Your task to perform on an android device: Check the weather Image 0: 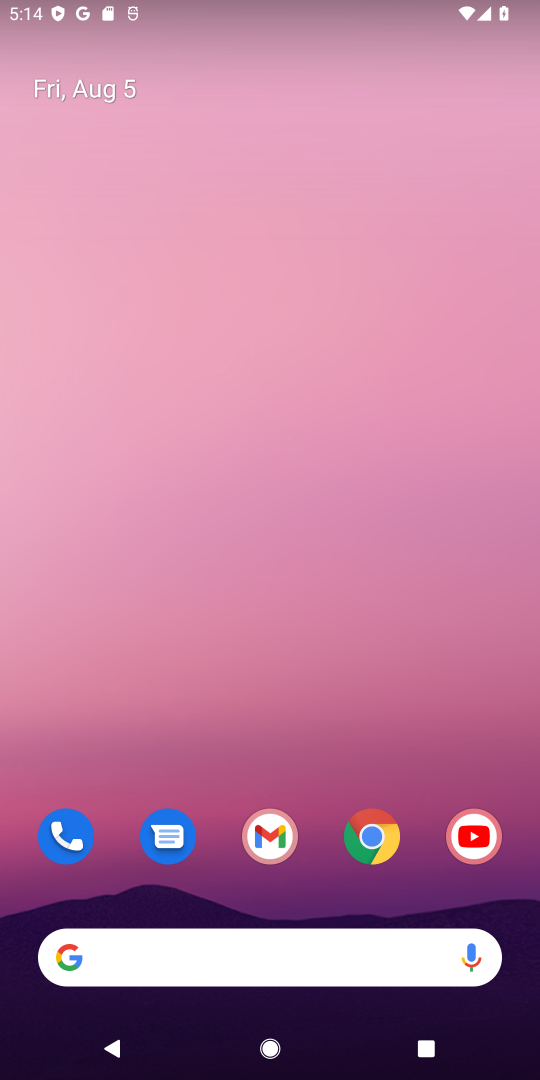
Step 0: click (155, 961)
Your task to perform on an android device: Check the weather Image 1: 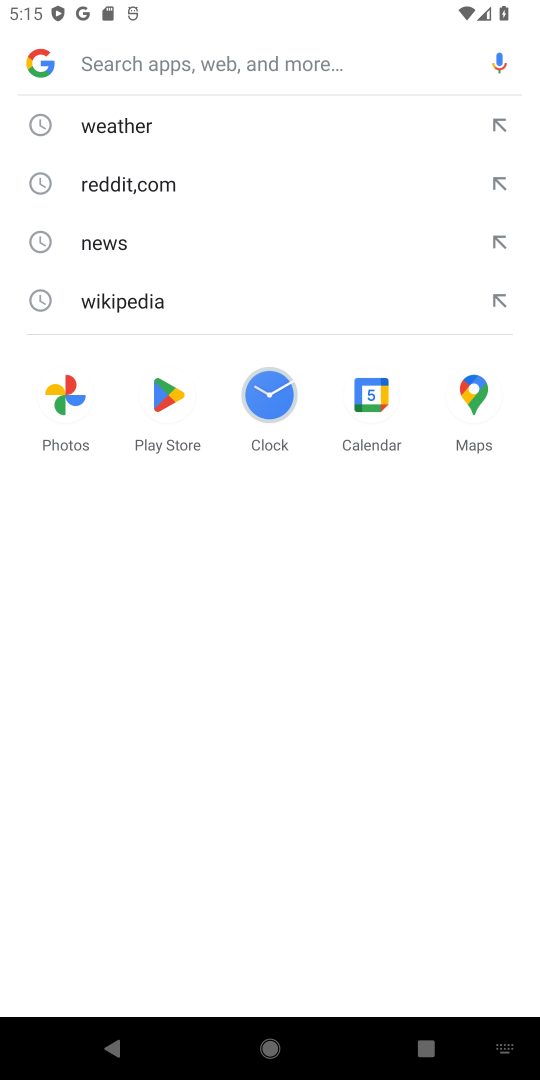
Step 1: click (149, 117)
Your task to perform on an android device: Check the weather Image 2: 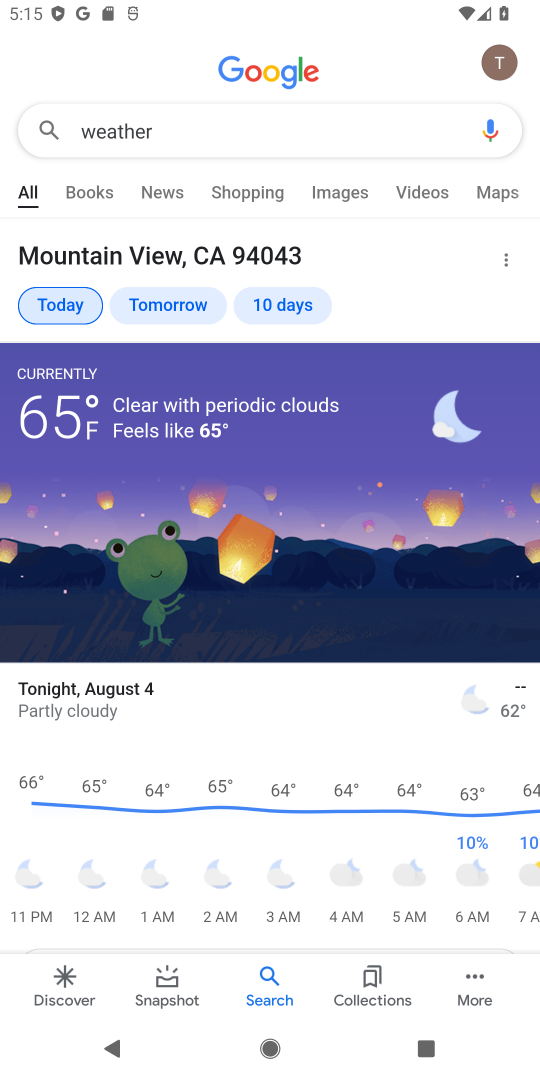
Step 2: task complete